Your task to perform on an android device: change text size in settings app Image 0: 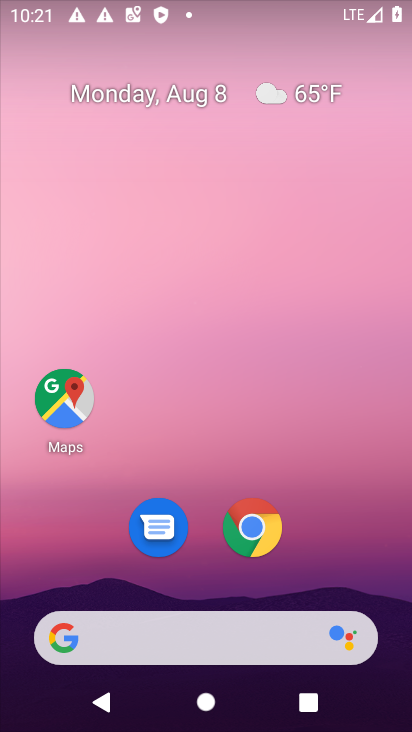
Step 0: drag from (394, 722) to (355, 249)
Your task to perform on an android device: change text size in settings app Image 1: 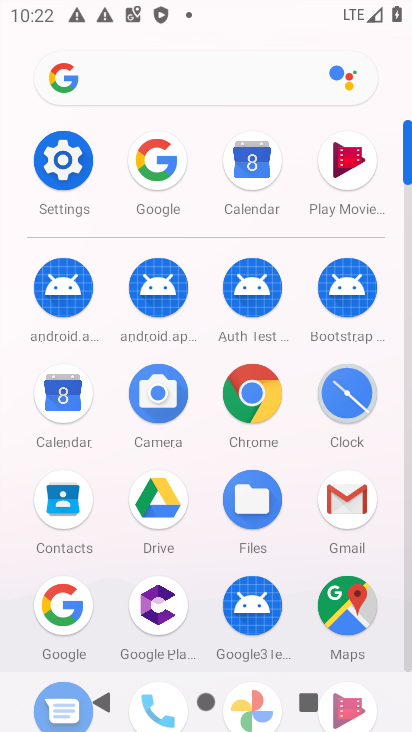
Step 1: click (65, 169)
Your task to perform on an android device: change text size in settings app Image 2: 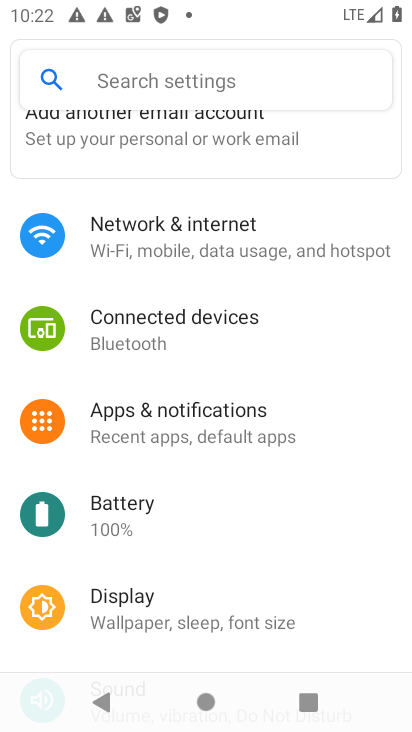
Step 2: click (130, 593)
Your task to perform on an android device: change text size in settings app Image 3: 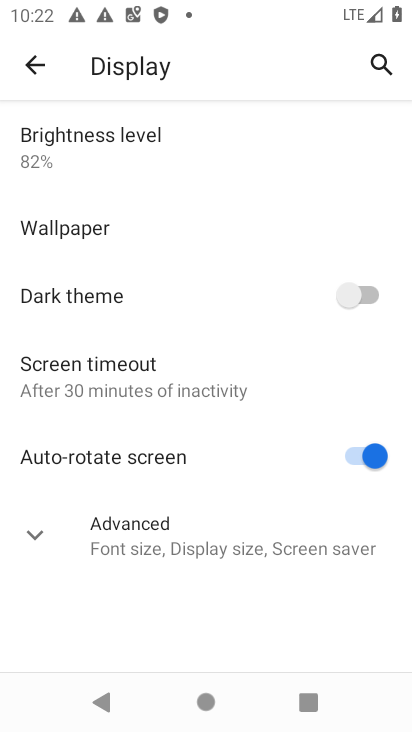
Step 3: click (38, 533)
Your task to perform on an android device: change text size in settings app Image 4: 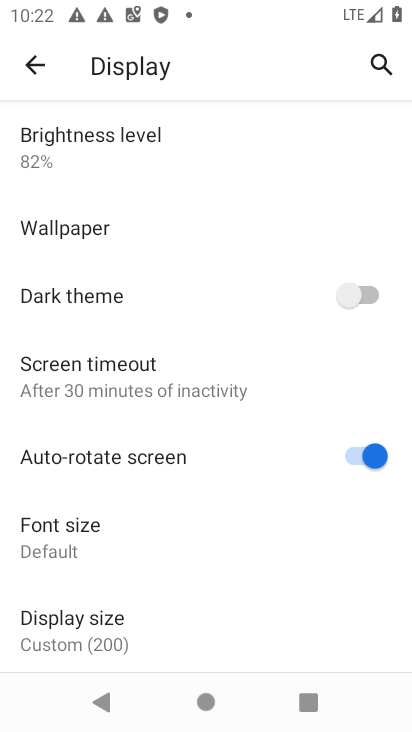
Step 4: click (47, 543)
Your task to perform on an android device: change text size in settings app Image 5: 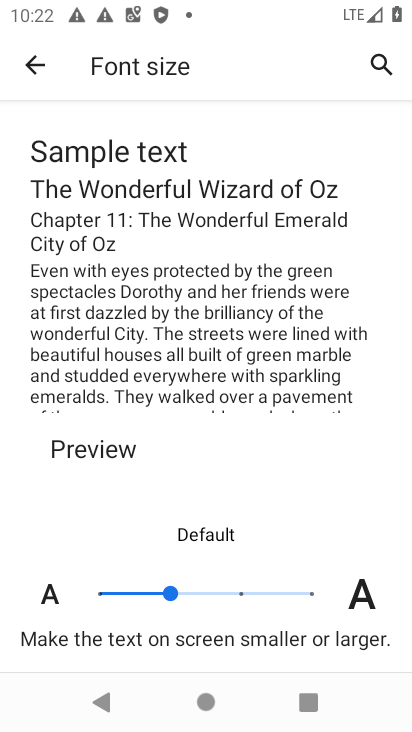
Step 5: click (240, 591)
Your task to perform on an android device: change text size in settings app Image 6: 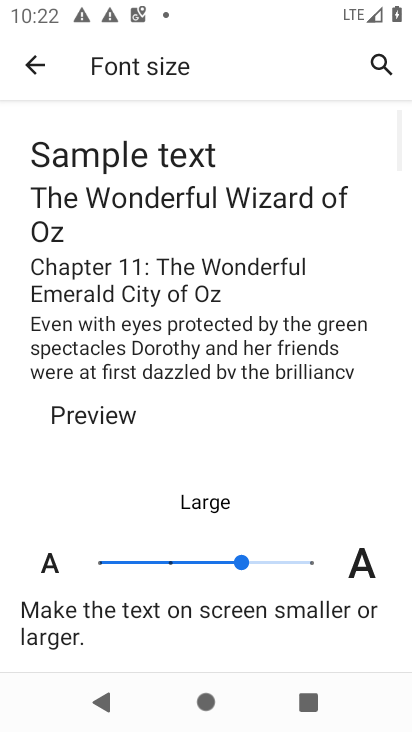
Step 6: task complete